Your task to perform on an android device: check storage Image 0: 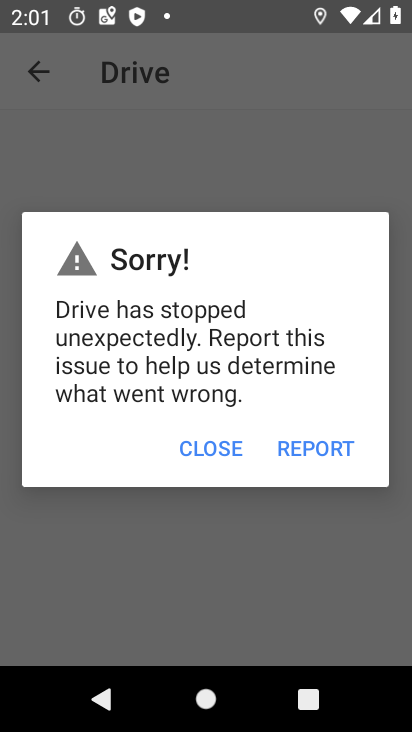
Step 0: drag from (210, 560) to (383, 186)
Your task to perform on an android device: check storage Image 1: 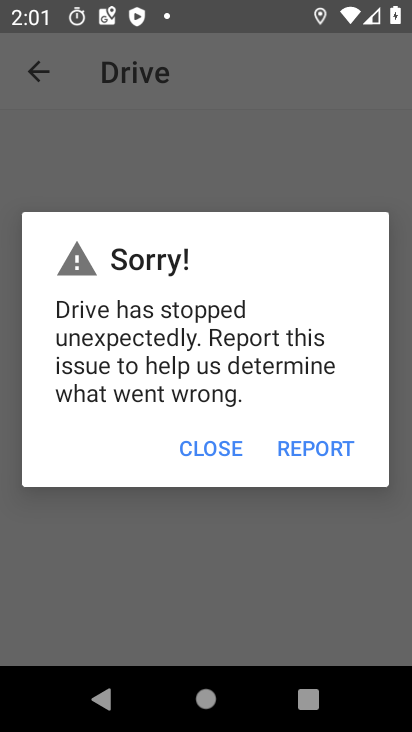
Step 1: press home button
Your task to perform on an android device: check storage Image 2: 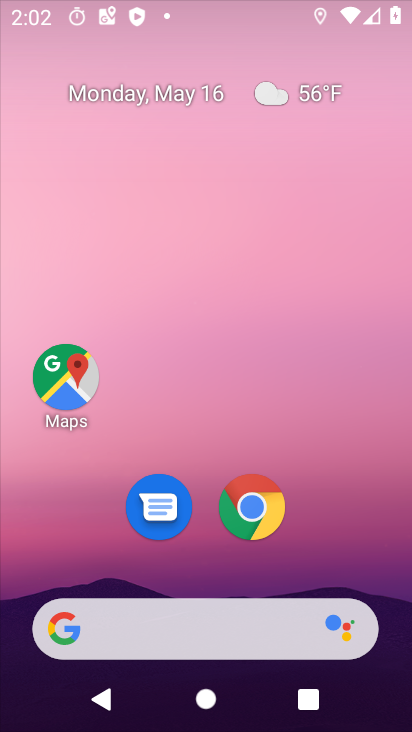
Step 2: drag from (231, 561) to (286, 50)
Your task to perform on an android device: check storage Image 3: 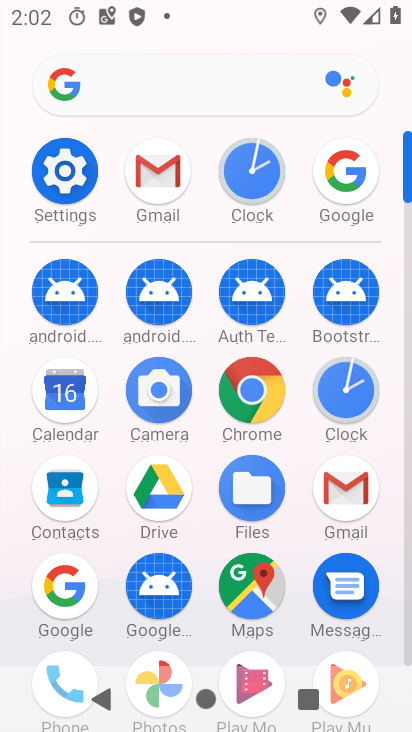
Step 3: click (62, 173)
Your task to perform on an android device: check storage Image 4: 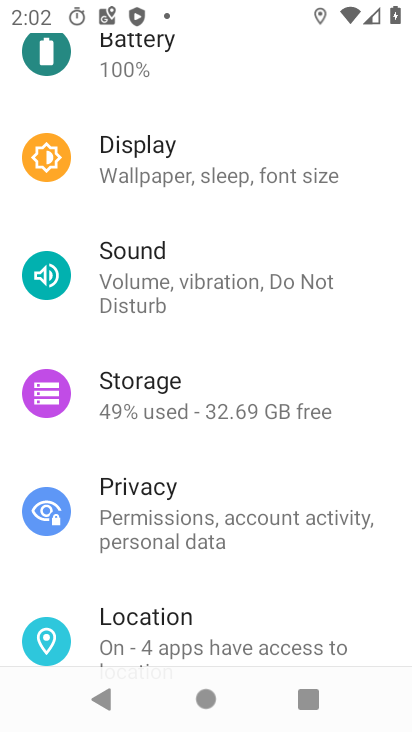
Step 4: click (138, 398)
Your task to perform on an android device: check storage Image 5: 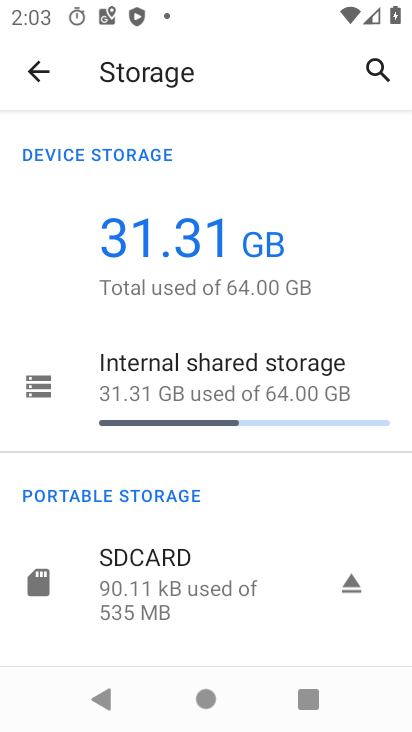
Step 5: task complete